Your task to perform on an android device: delete a single message in the gmail app Image 0: 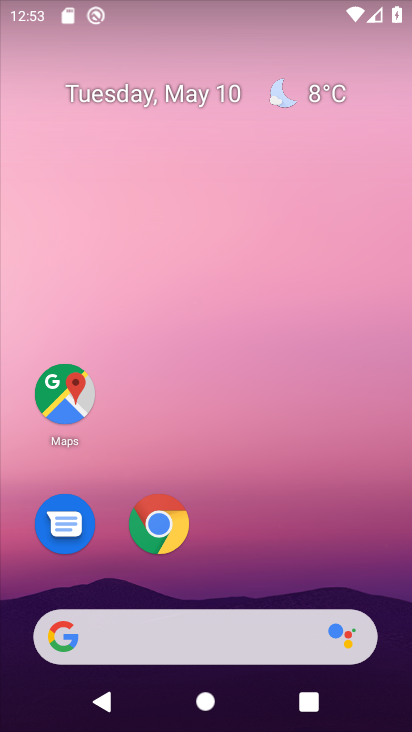
Step 0: drag from (276, 479) to (242, 18)
Your task to perform on an android device: delete a single message in the gmail app Image 1: 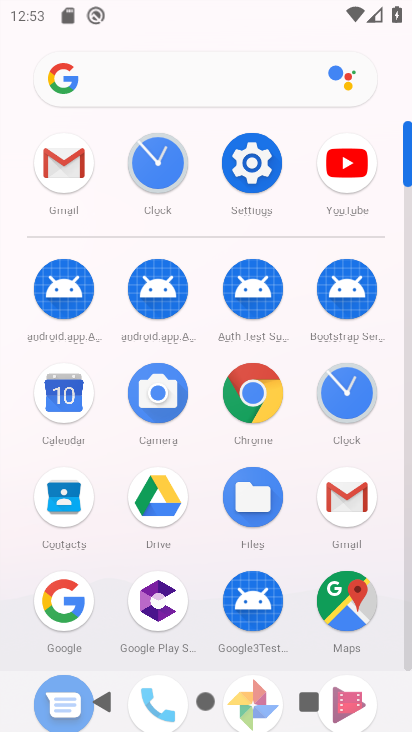
Step 1: click (67, 153)
Your task to perform on an android device: delete a single message in the gmail app Image 2: 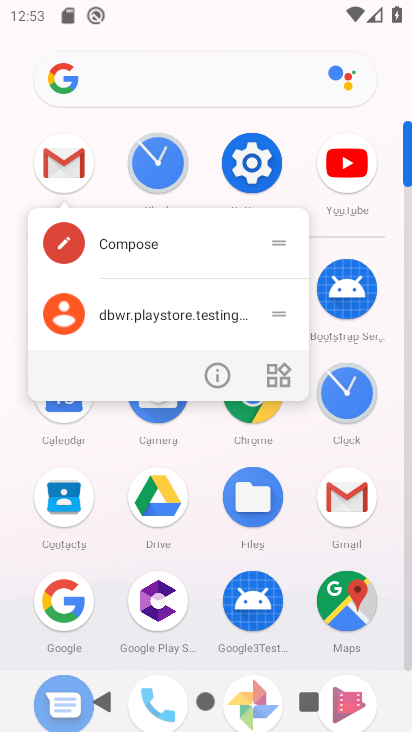
Step 2: click (67, 154)
Your task to perform on an android device: delete a single message in the gmail app Image 3: 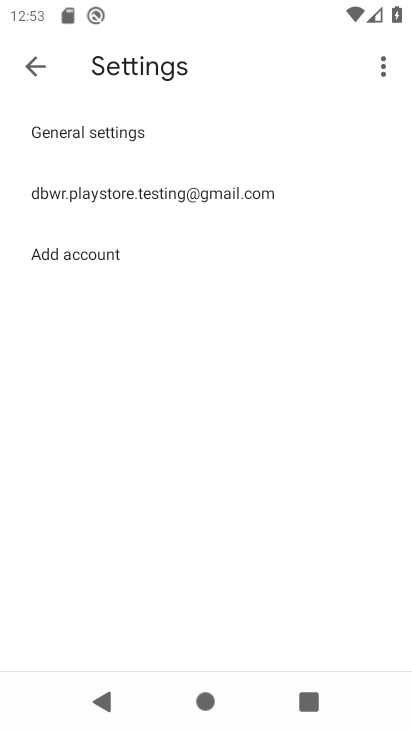
Step 3: click (38, 62)
Your task to perform on an android device: delete a single message in the gmail app Image 4: 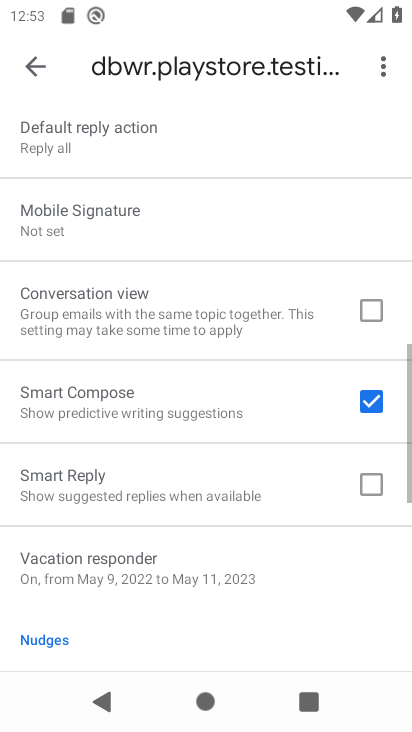
Step 4: click (38, 61)
Your task to perform on an android device: delete a single message in the gmail app Image 5: 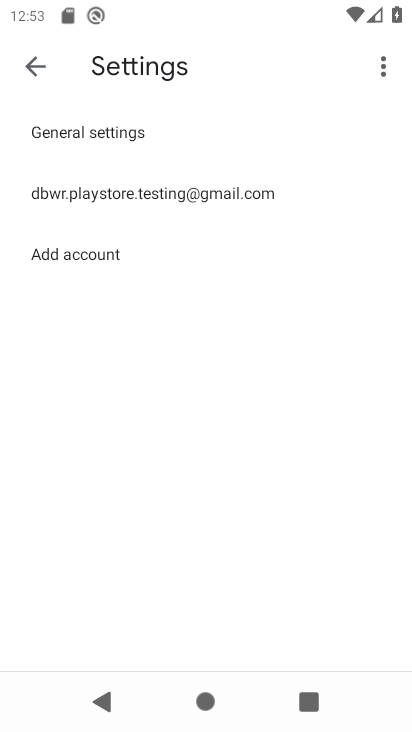
Step 5: click (38, 61)
Your task to perform on an android device: delete a single message in the gmail app Image 6: 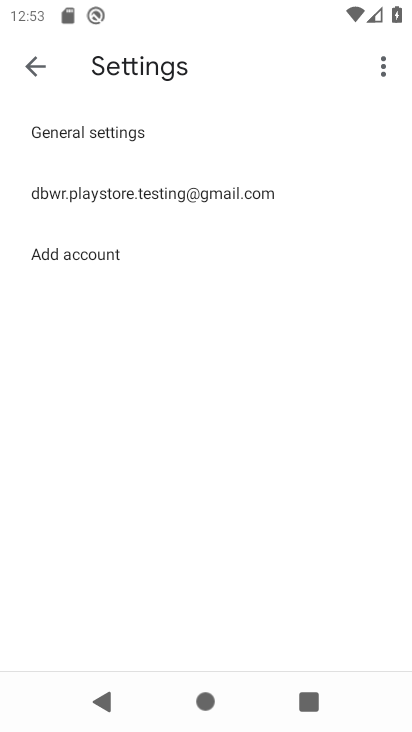
Step 6: click (38, 61)
Your task to perform on an android device: delete a single message in the gmail app Image 7: 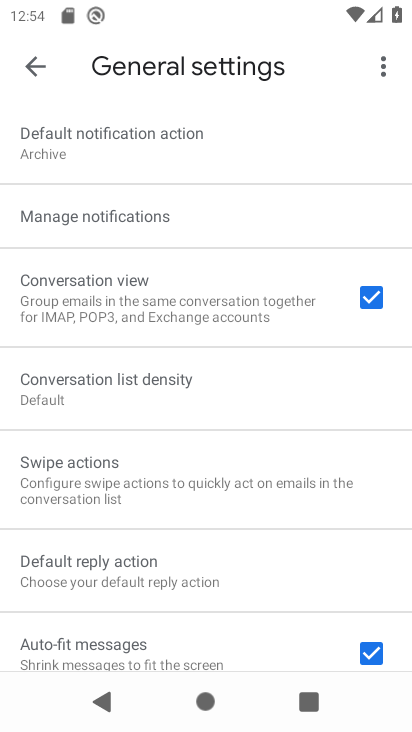
Step 7: click (32, 61)
Your task to perform on an android device: delete a single message in the gmail app Image 8: 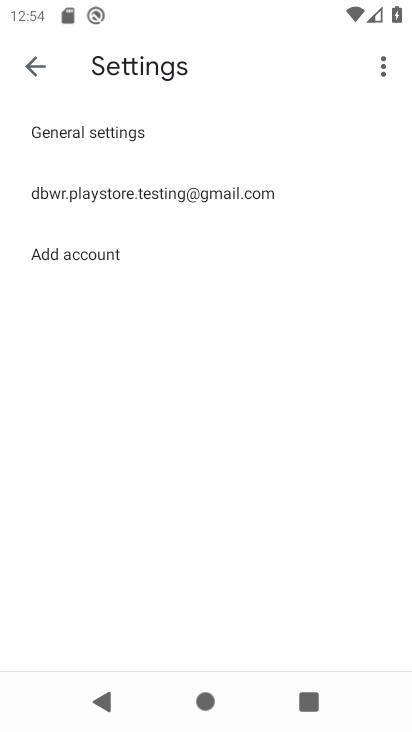
Step 8: press back button
Your task to perform on an android device: delete a single message in the gmail app Image 9: 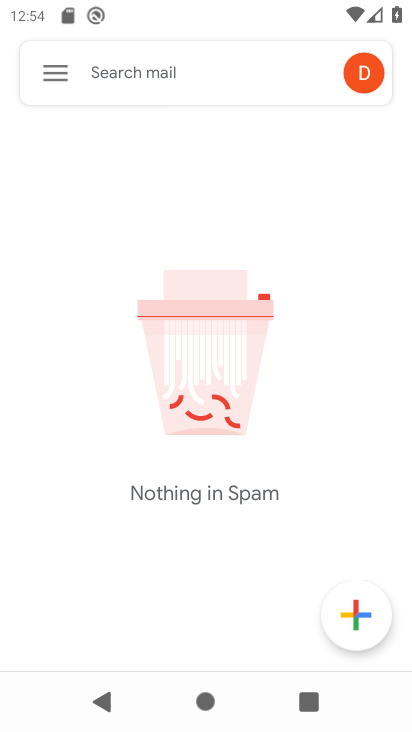
Step 9: click (57, 70)
Your task to perform on an android device: delete a single message in the gmail app Image 10: 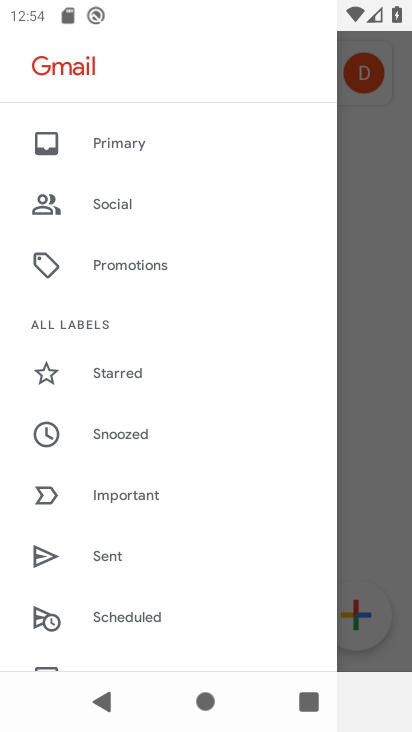
Step 10: drag from (171, 567) to (180, 137)
Your task to perform on an android device: delete a single message in the gmail app Image 11: 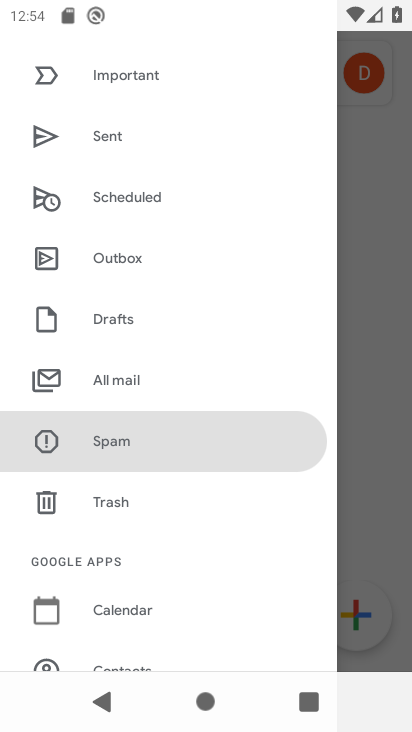
Step 11: click (158, 379)
Your task to perform on an android device: delete a single message in the gmail app Image 12: 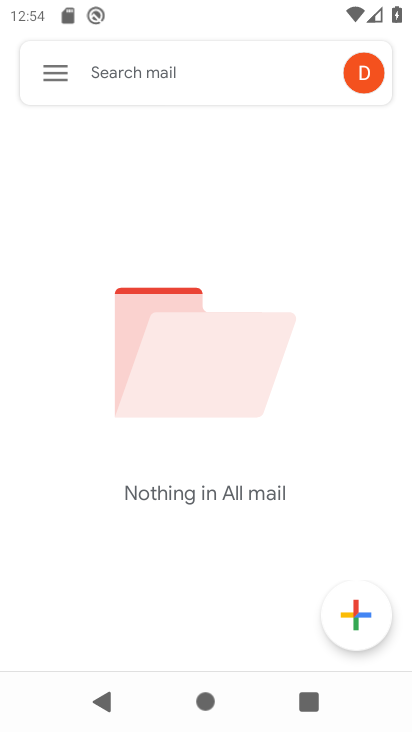
Step 12: task complete